Your task to perform on an android device: Search for the best custom wallets on Etsy. Image 0: 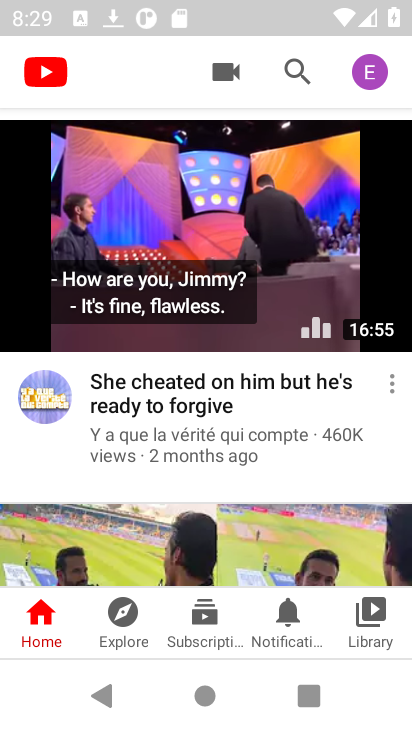
Step 0: press home button
Your task to perform on an android device: Search for the best custom wallets on Etsy. Image 1: 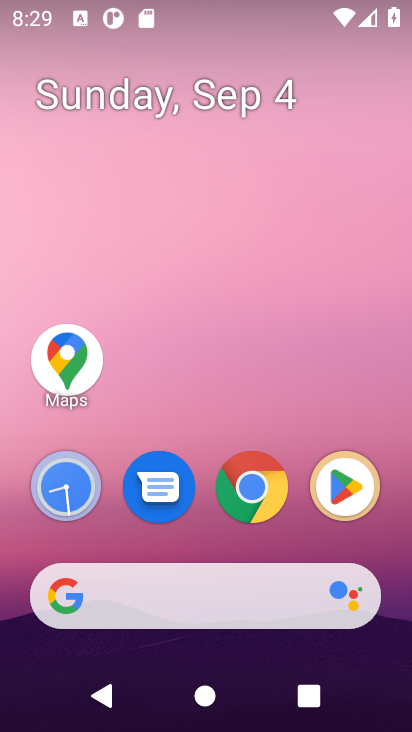
Step 1: click (211, 584)
Your task to perform on an android device: Search for the best custom wallets on Etsy. Image 2: 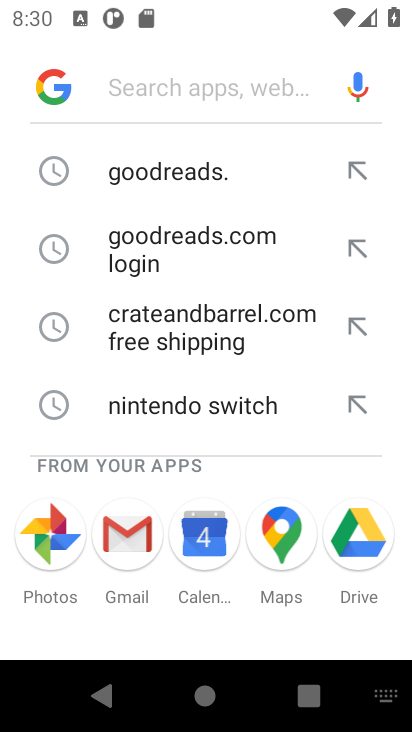
Step 2: type "etsy.com"
Your task to perform on an android device: Search for the best custom wallets on Etsy. Image 3: 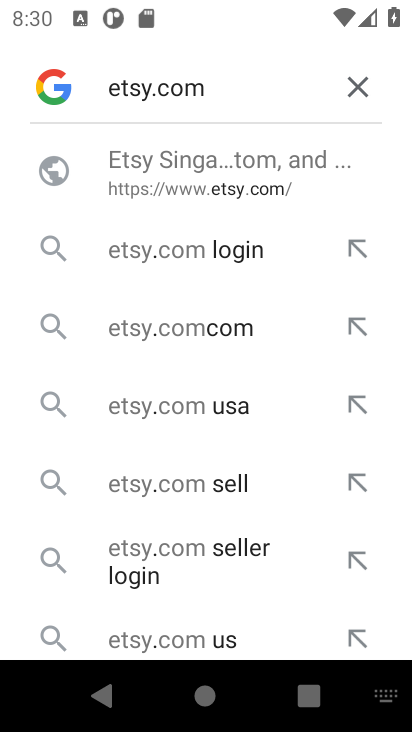
Step 3: click (321, 166)
Your task to perform on an android device: Search for the best custom wallets on Etsy. Image 4: 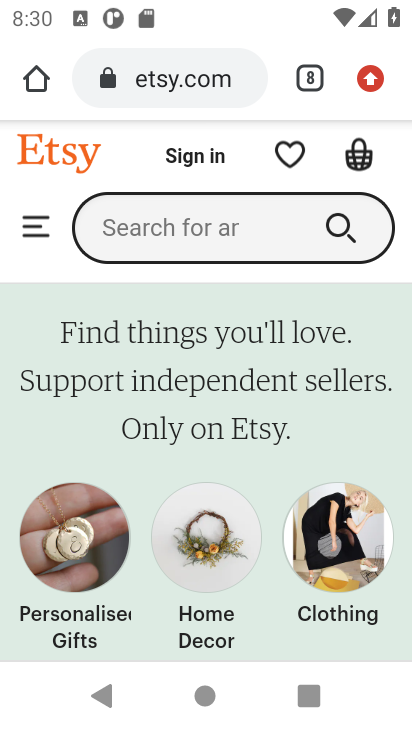
Step 4: click (264, 213)
Your task to perform on an android device: Search for the best custom wallets on Etsy. Image 5: 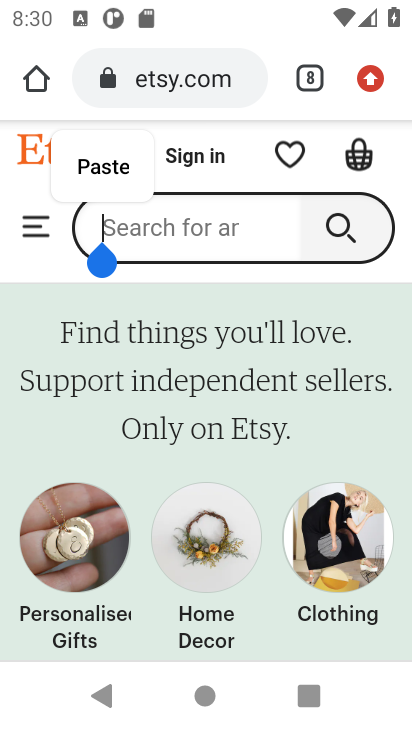
Step 5: type " custom wallets"
Your task to perform on an android device: Search for the best custom wallets on Etsy. Image 6: 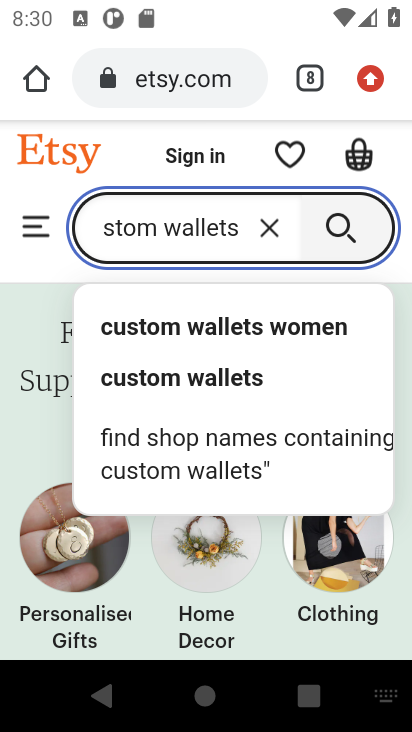
Step 6: click (247, 389)
Your task to perform on an android device: Search for the best custom wallets on Etsy. Image 7: 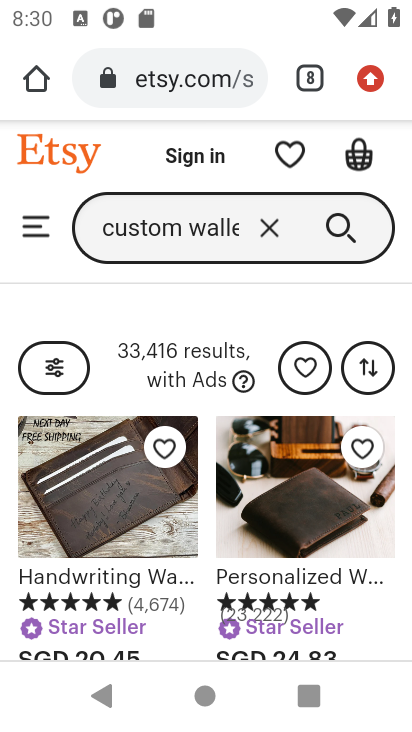
Step 7: task complete